Your task to perform on an android device: Open calendar and show me the second week of next month Image 0: 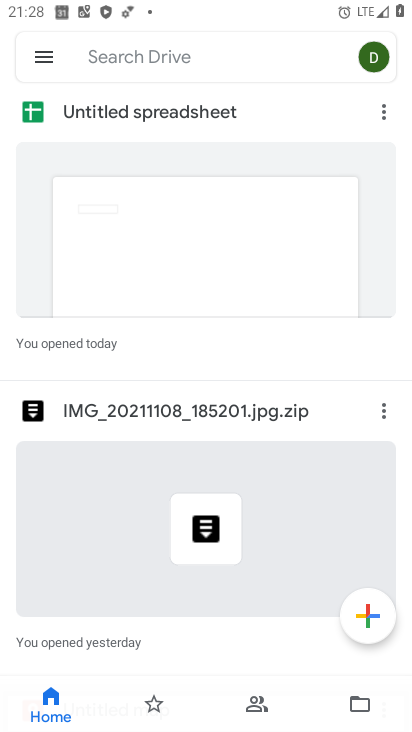
Step 0: press home button
Your task to perform on an android device: Open calendar and show me the second week of next month Image 1: 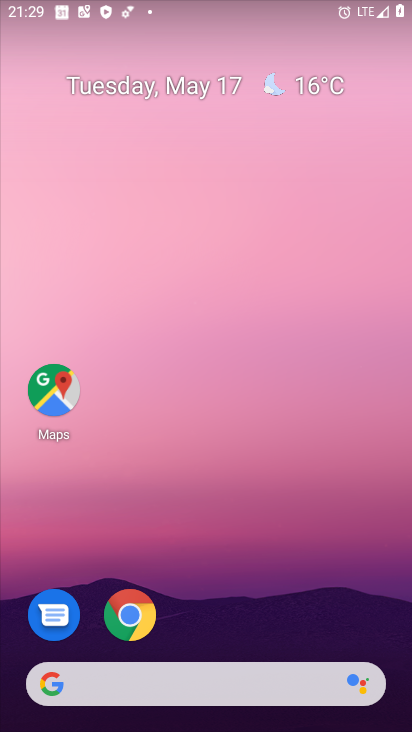
Step 1: drag from (232, 607) to (213, 125)
Your task to perform on an android device: Open calendar and show me the second week of next month Image 2: 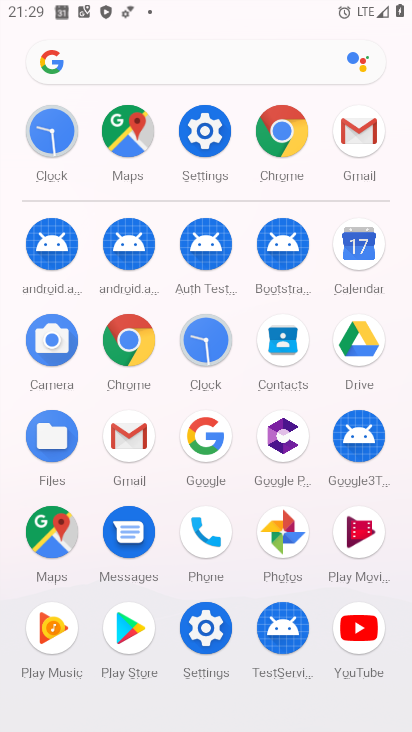
Step 2: click (366, 238)
Your task to perform on an android device: Open calendar and show me the second week of next month Image 3: 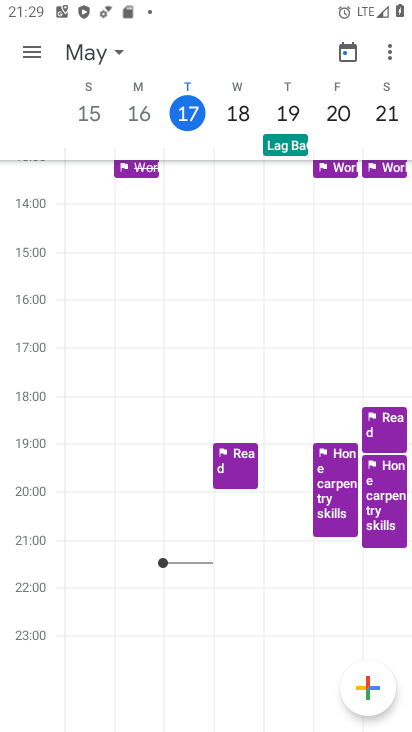
Step 3: click (39, 49)
Your task to perform on an android device: Open calendar and show me the second week of next month Image 4: 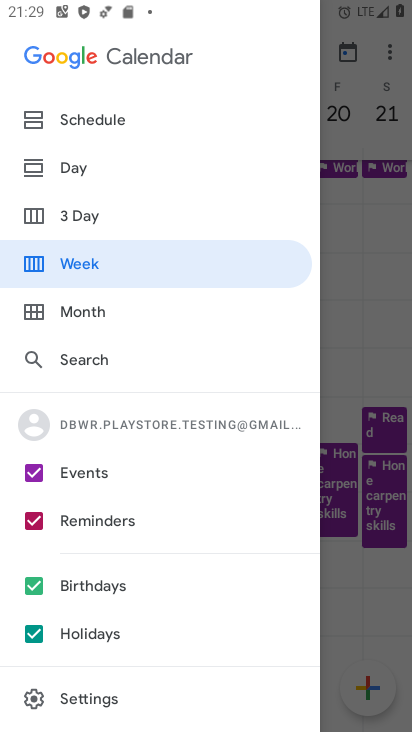
Step 4: click (345, 149)
Your task to perform on an android device: Open calendar and show me the second week of next month Image 5: 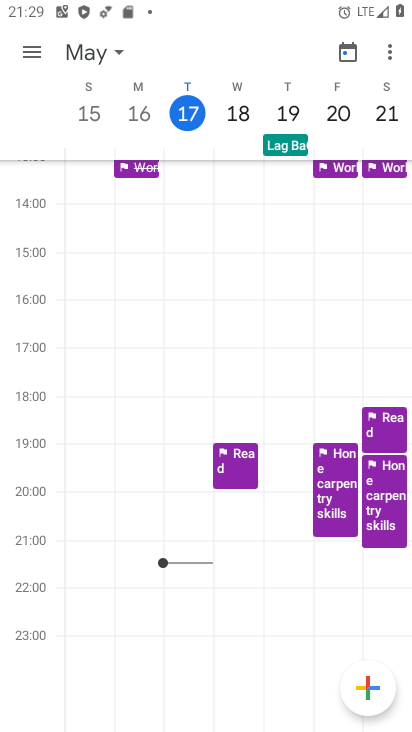
Step 5: click (111, 50)
Your task to perform on an android device: Open calendar and show me the second week of next month Image 6: 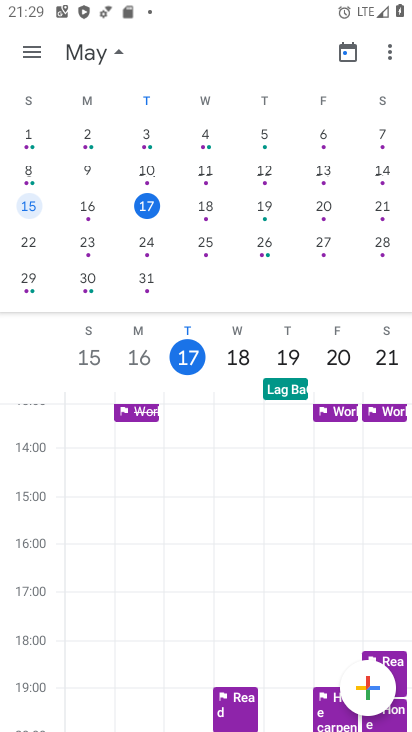
Step 6: drag from (328, 215) to (37, 197)
Your task to perform on an android device: Open calendar and show me the second week of next month Image 7: 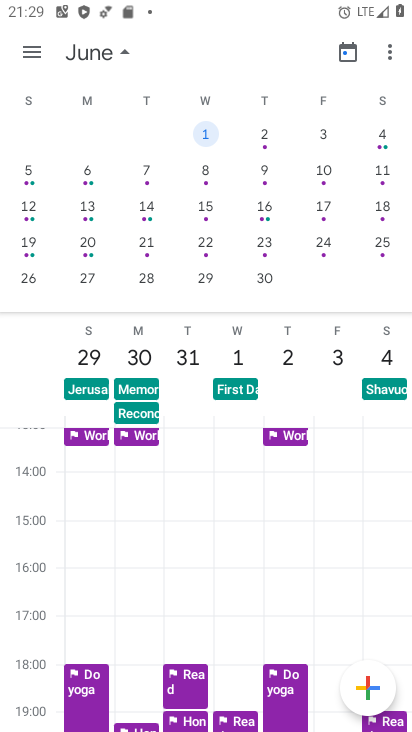
Step 7: click (89, 203)
Your task to perform on an android device: Open calendar and show me the second week of next month Image 8: 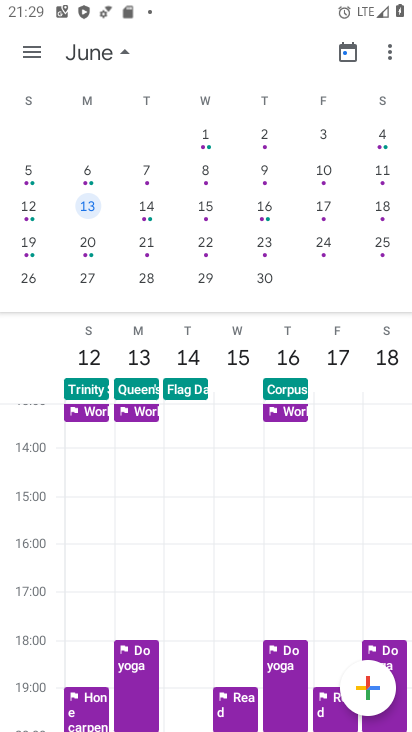
Step 8: task complete